Your task to perform on an android device: search for starred emails in the gmail app Image 0: 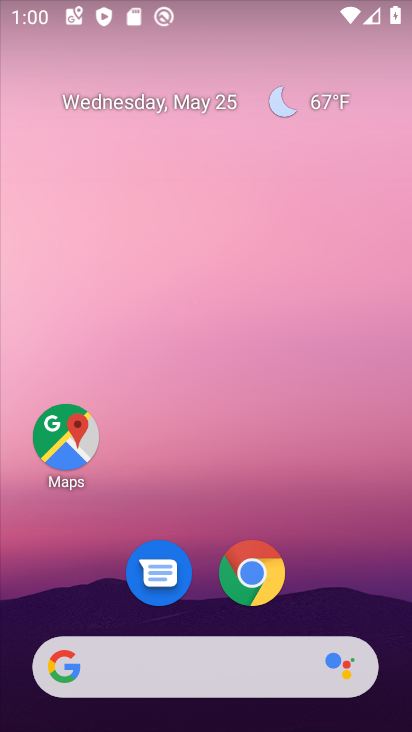
Step 0: drag from (337, 625) to (326, 185)
Your task to perform on an android device: search for starred emails in the gmail app Image 1: 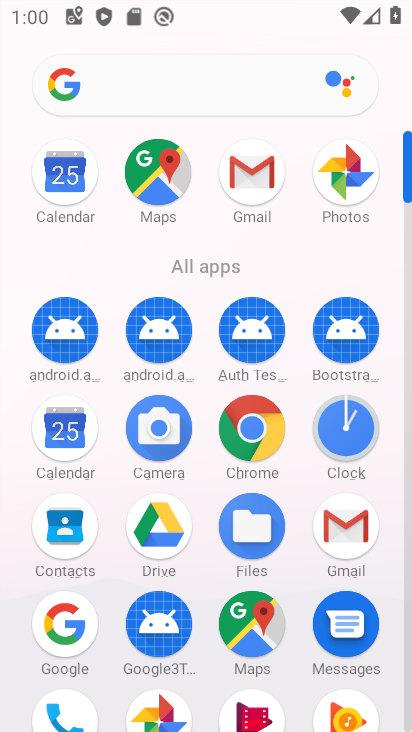
Step 1: click (343, 518)
Your task to perform on an android device: search for starred emails in the gmail app Image 2: 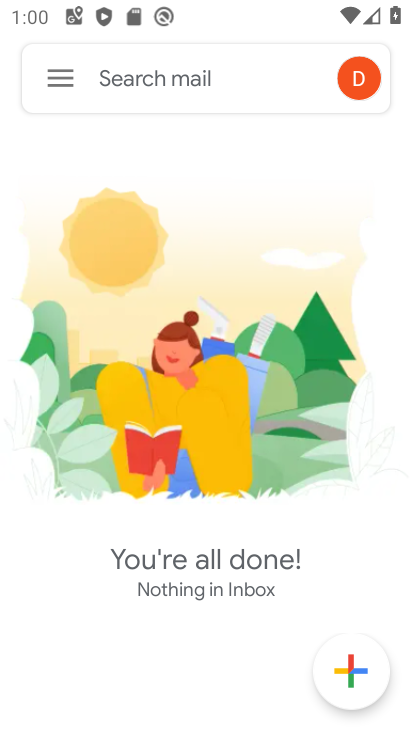
Step 2: click (59, 82)
Your task to perform on an android device: search for starred emails in the gmail app Image 3: 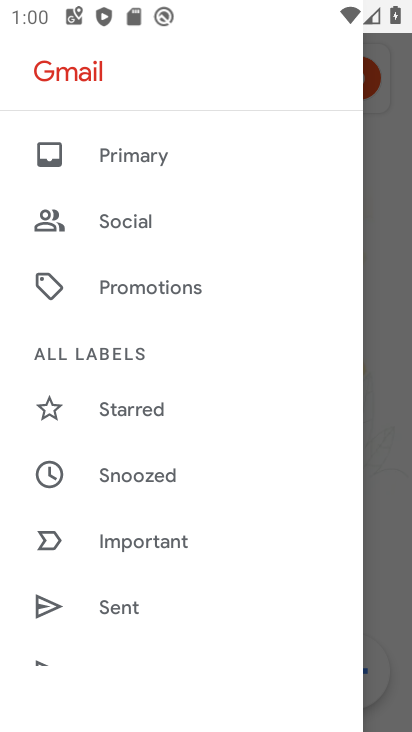
Step 3: click (145, 406)
Your task to perform on an android device: search for starred emails in the gmail app Image 4: 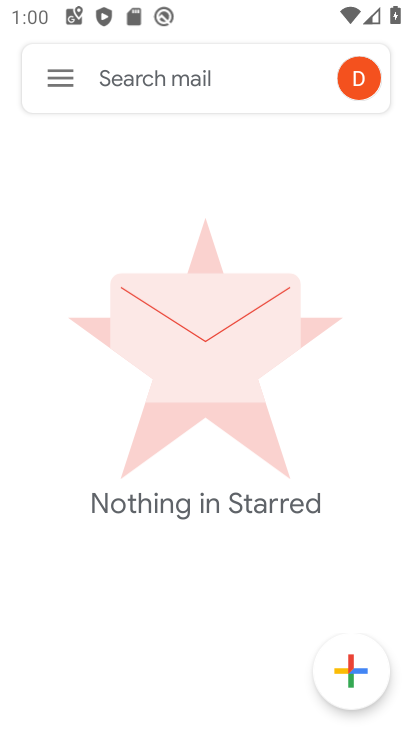
Step 4: task complete